Your task to perform on an android device: Search for a new bronzer Image 0: 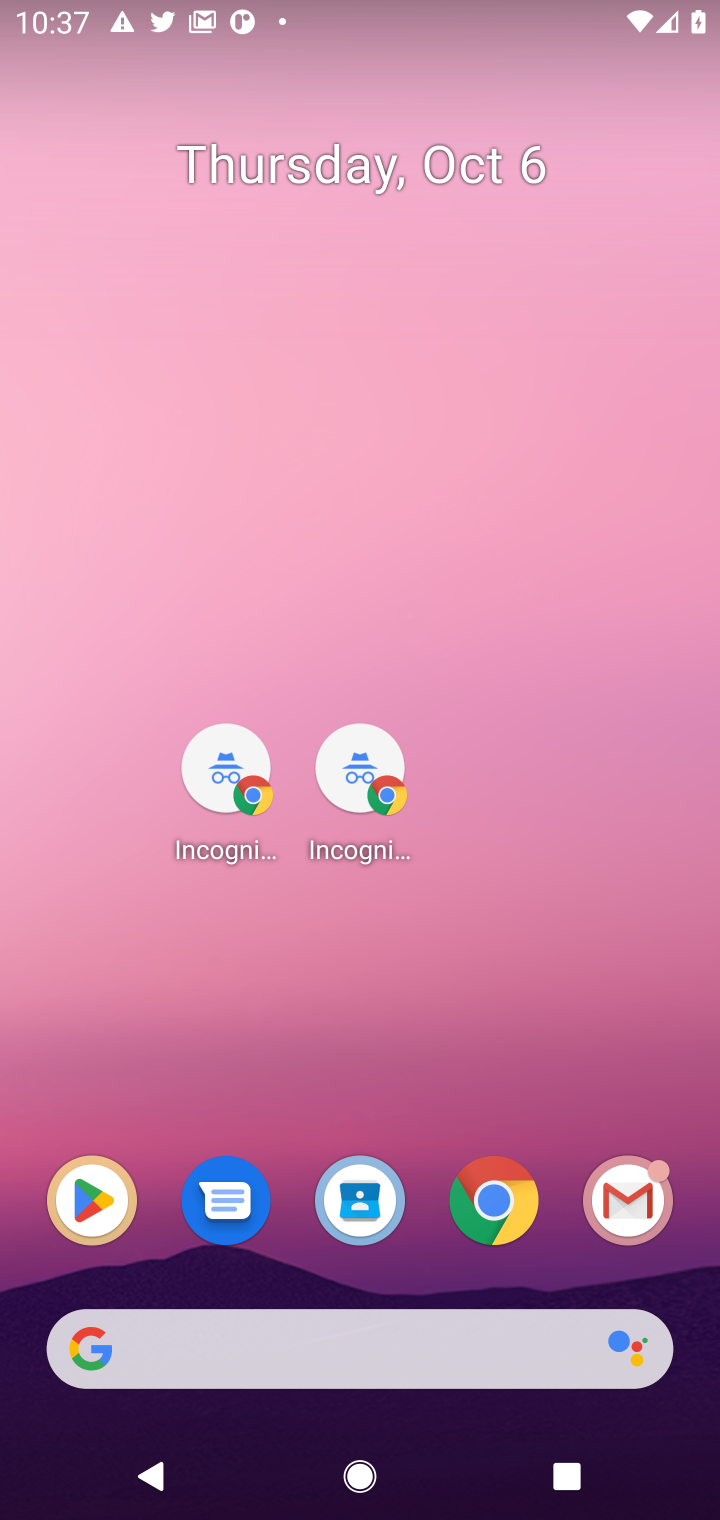
Step 0: click (505, 1208)
Your task to perform on an android device: Search for a new bronzer Image 1: 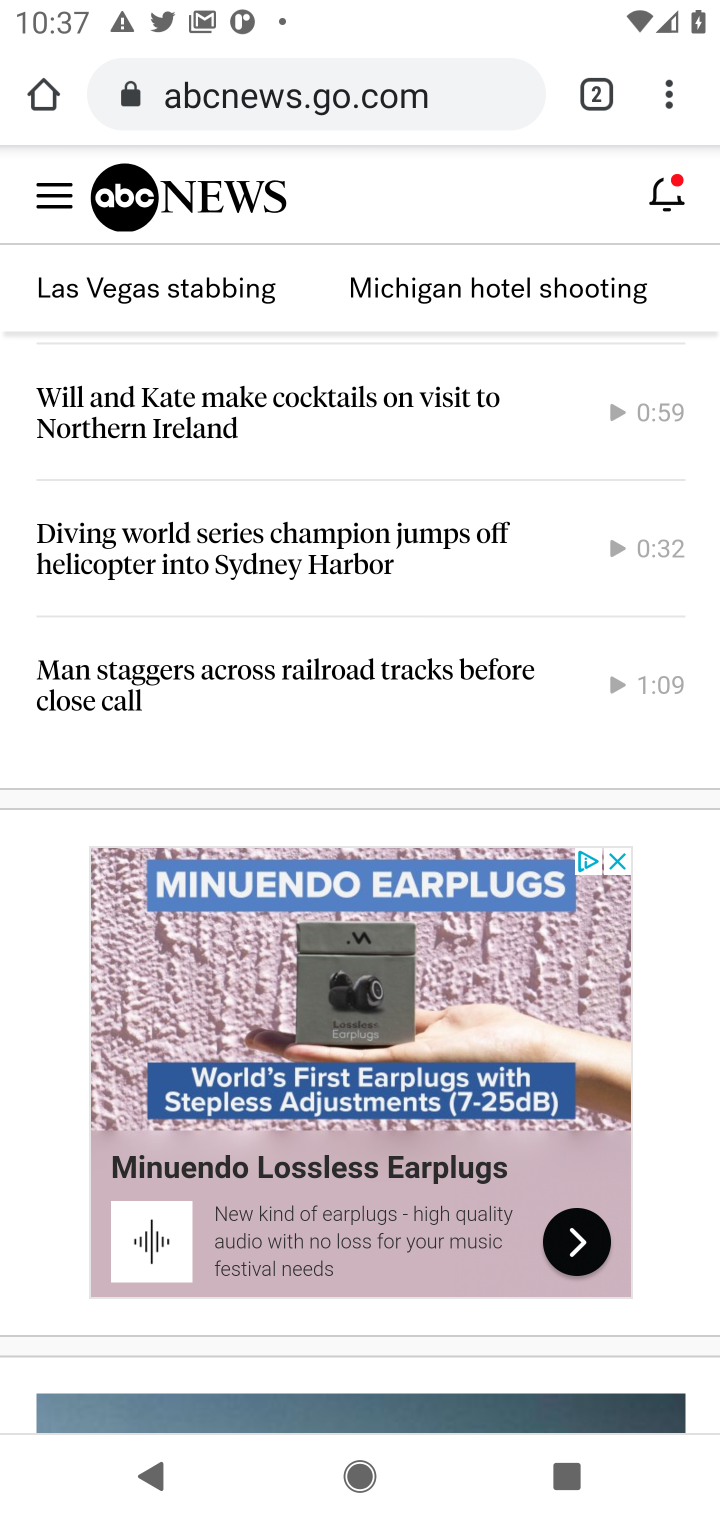
Step 1: click (439, 91)
Your task to perform on an android device: Search for a new bronzer Image 2: 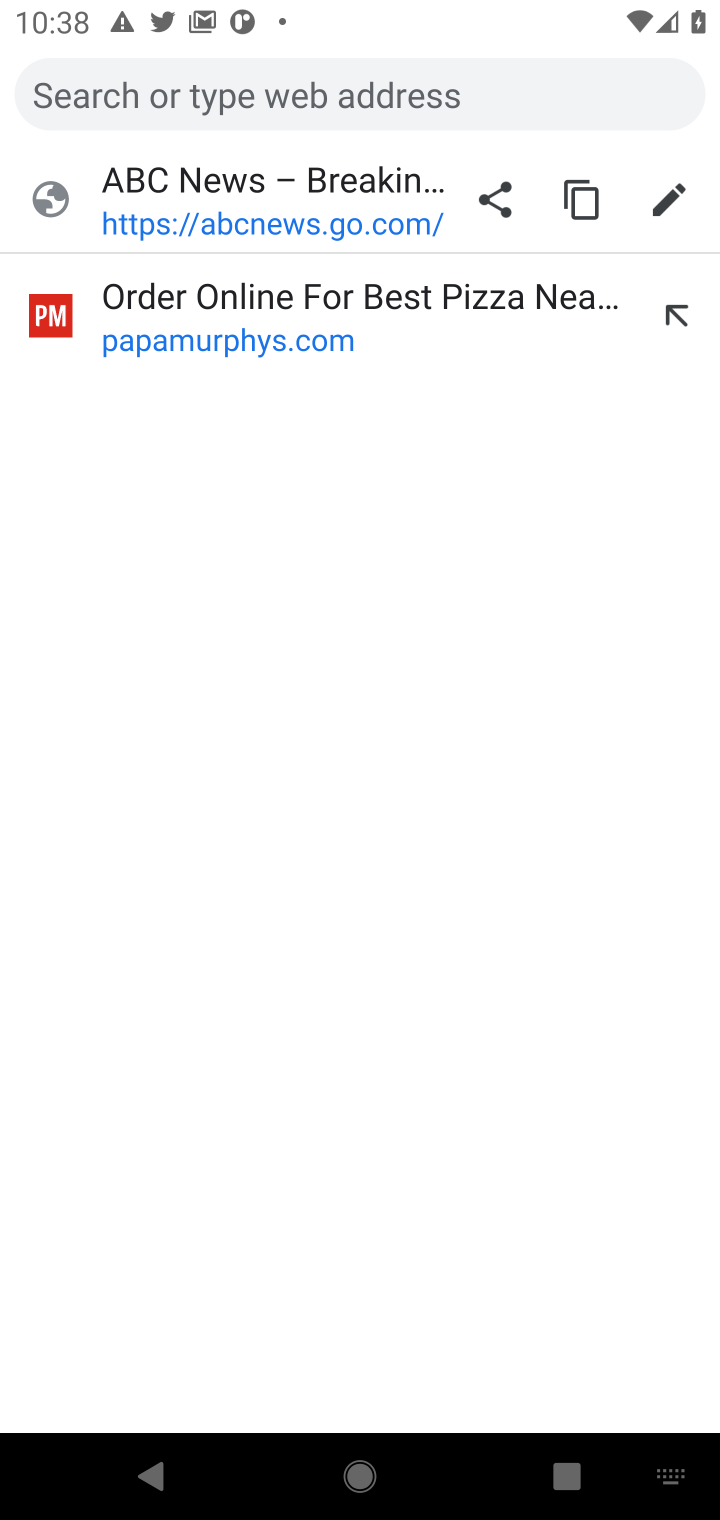
Step 2: type "new bronzer"
Your task to perform on an android device: Search for a new bronzer Image 3: 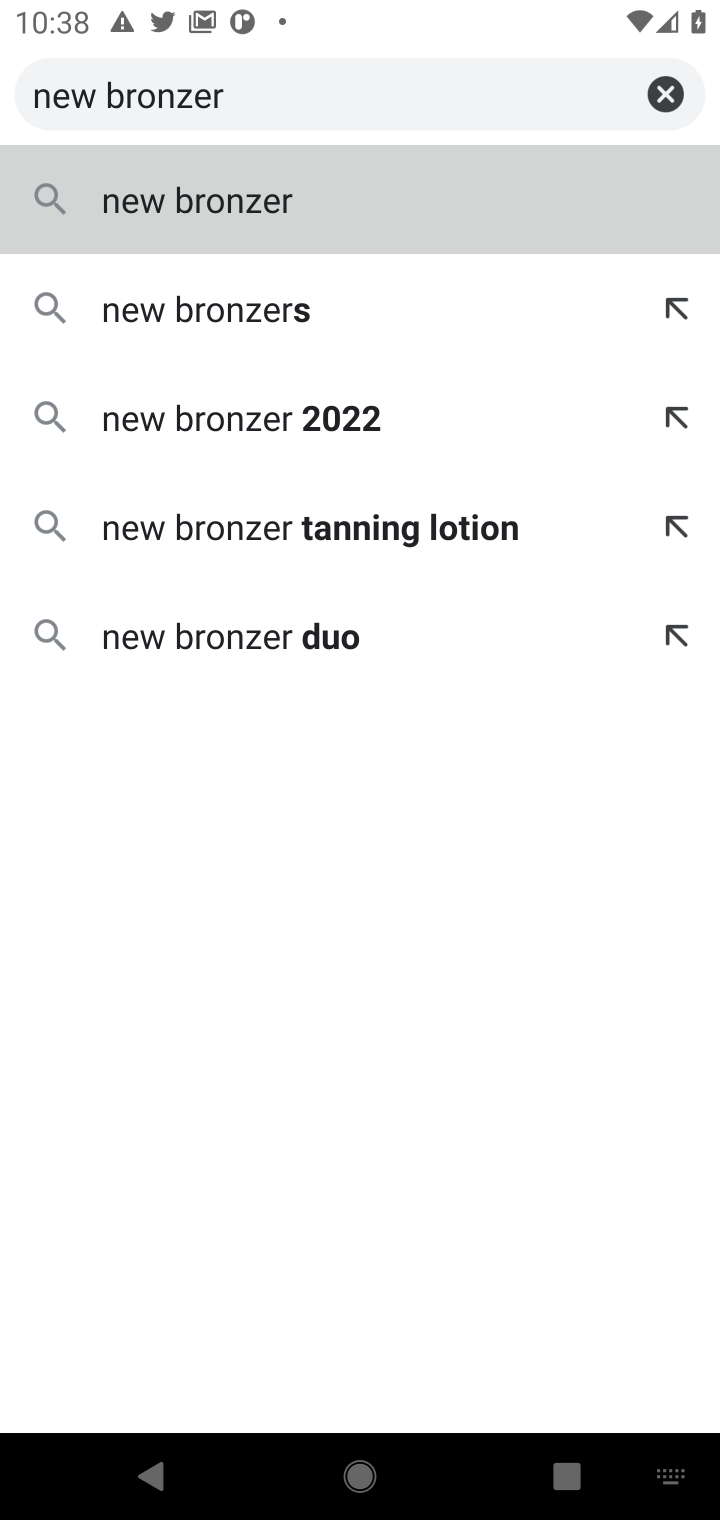
Step 3: click (268, 310)
Your task to perform on an android device: Search for a new bronzer Image 4: 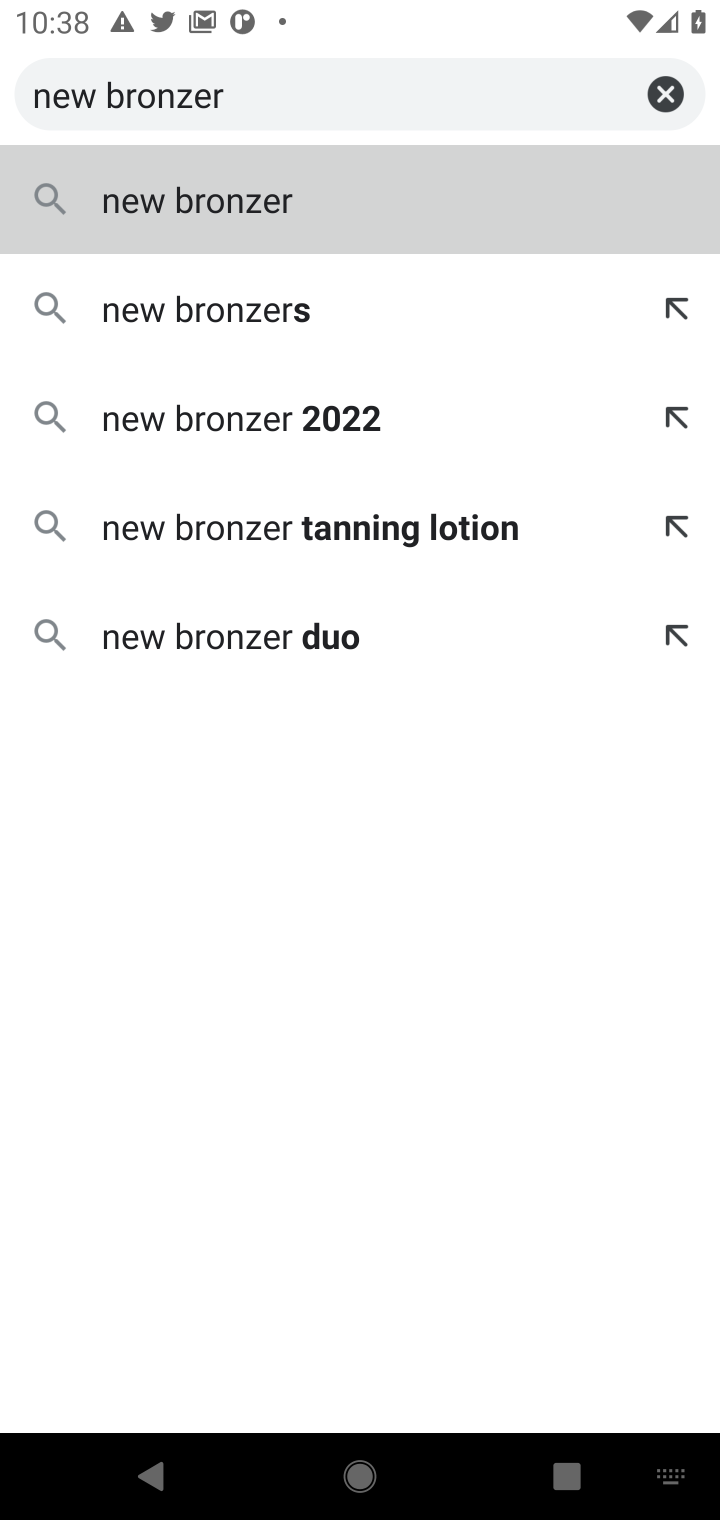
Step 4: click (315, 405)
Your task to perform on an android device: Search for a new bronzer Image 5: 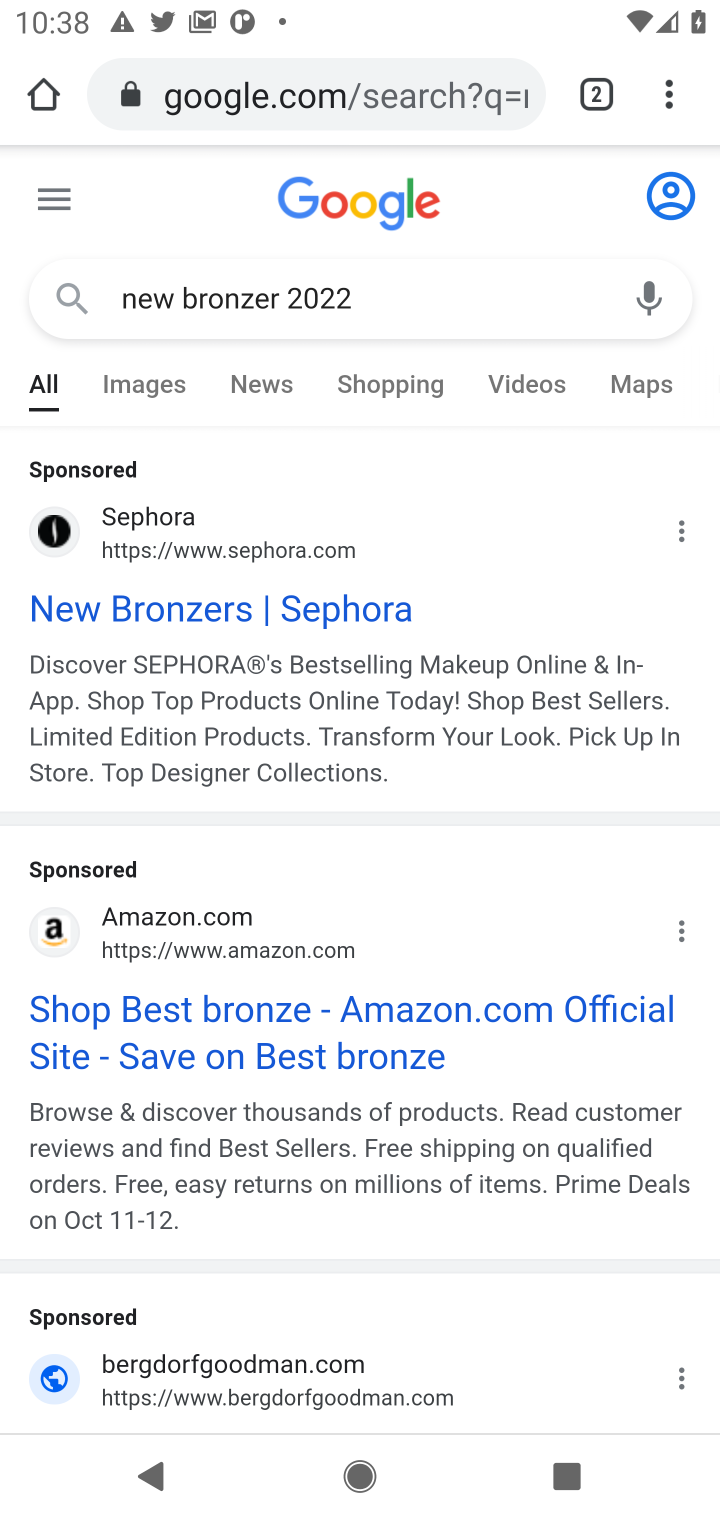
Step 5: click (176, 601)
Your task to perform on an android device: Search for a new bronzer Image 6: 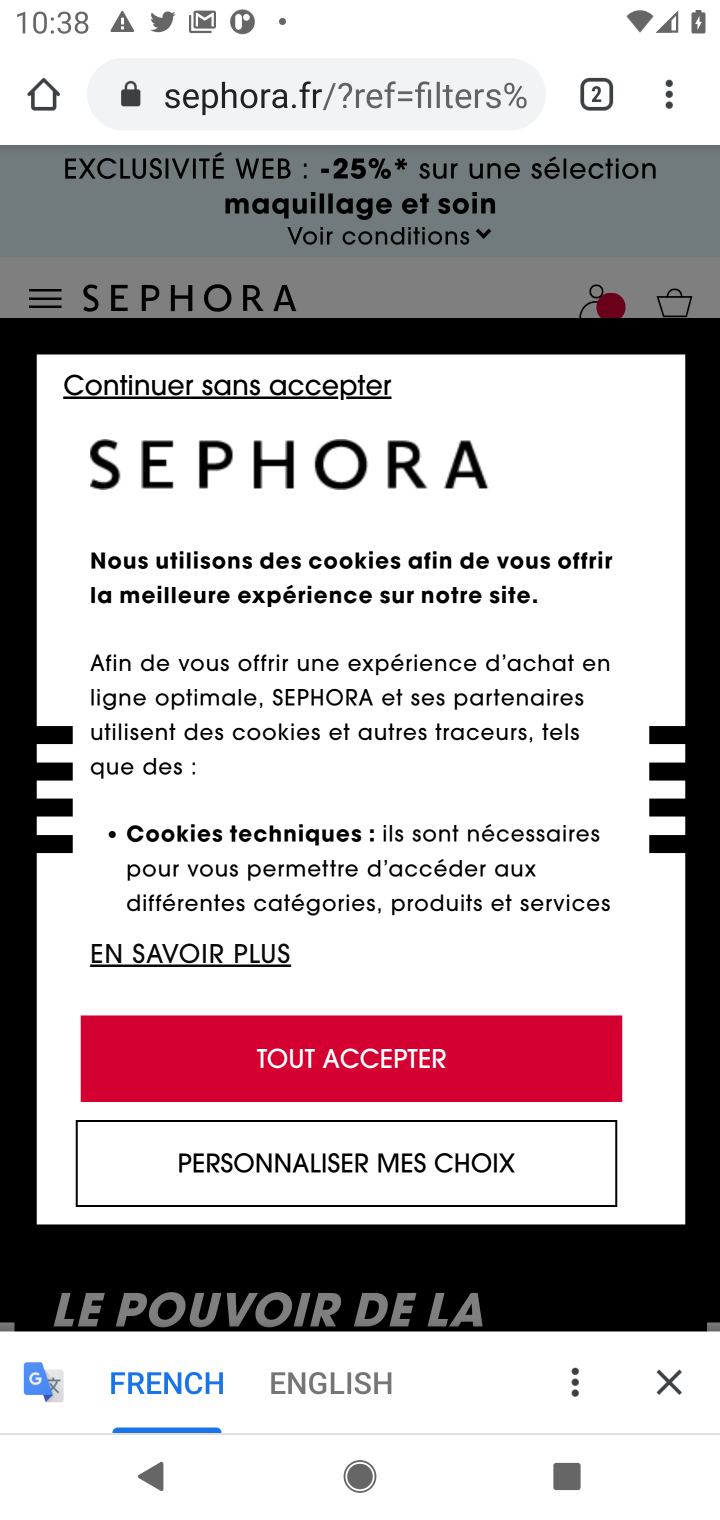
Step 6: click (661, 1383)
Your task to perform on an android device: Search for a new bronzer Image 7: 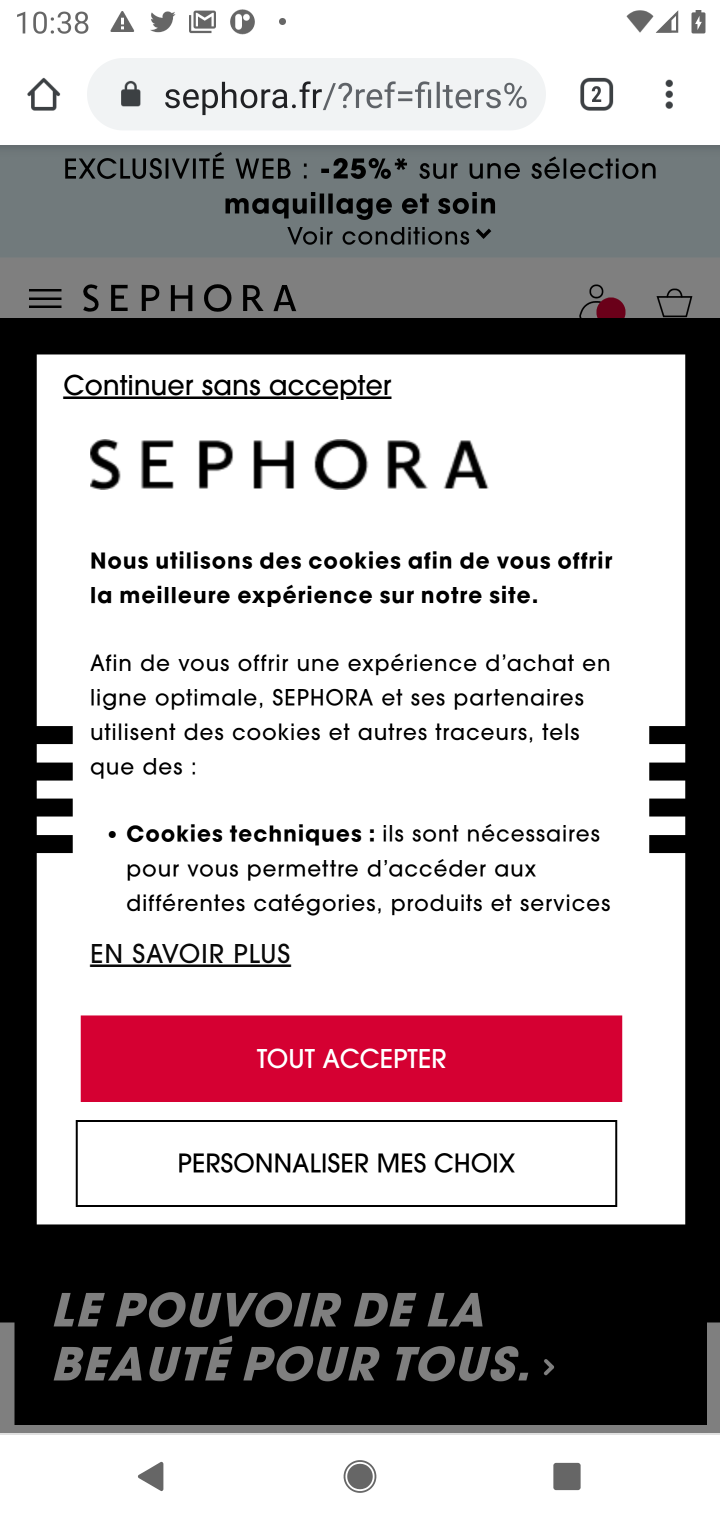
Step 7: press back button
Your task to perform on an android device: Search for a new bronzer Image 8: 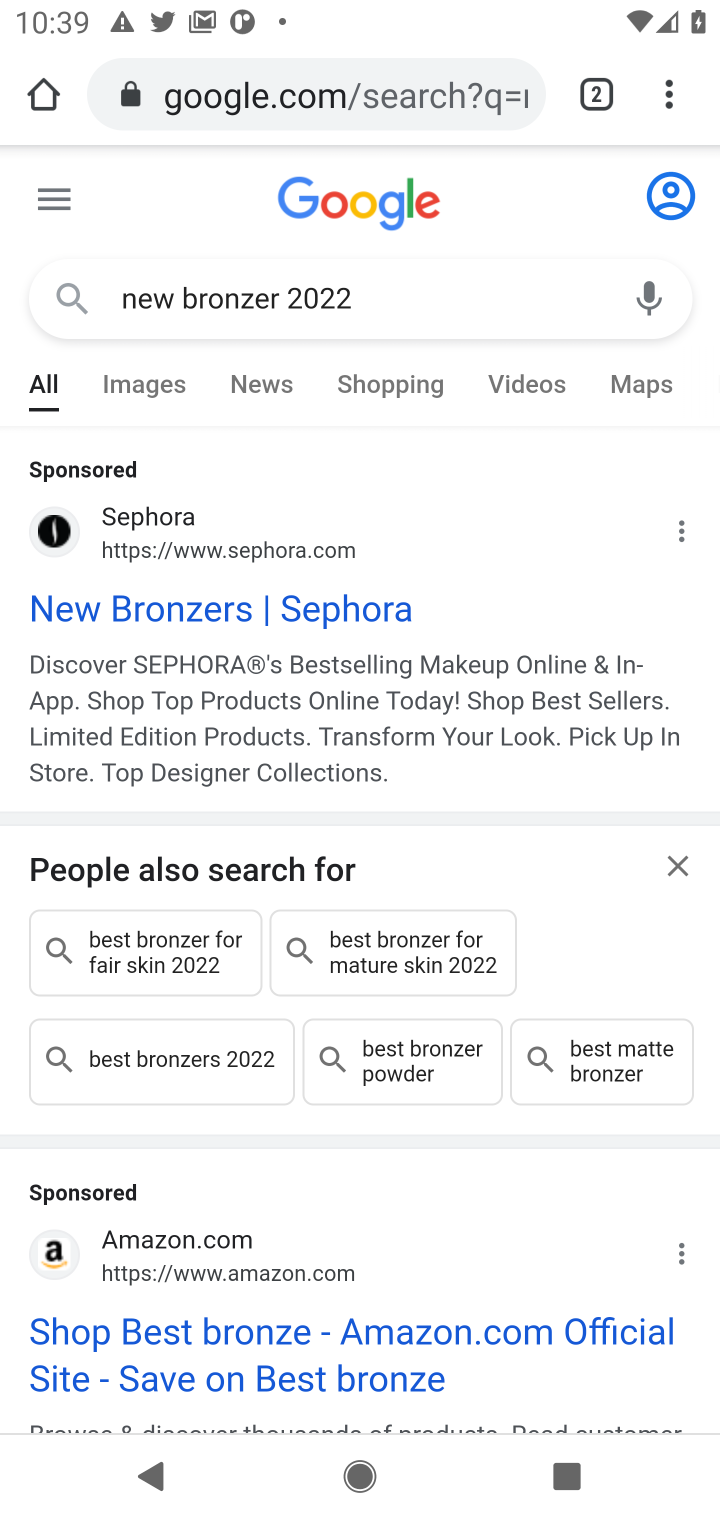
Step 8: click (205, 614)
Your task to perform on an android device: Search for a new bronzer Image 9: 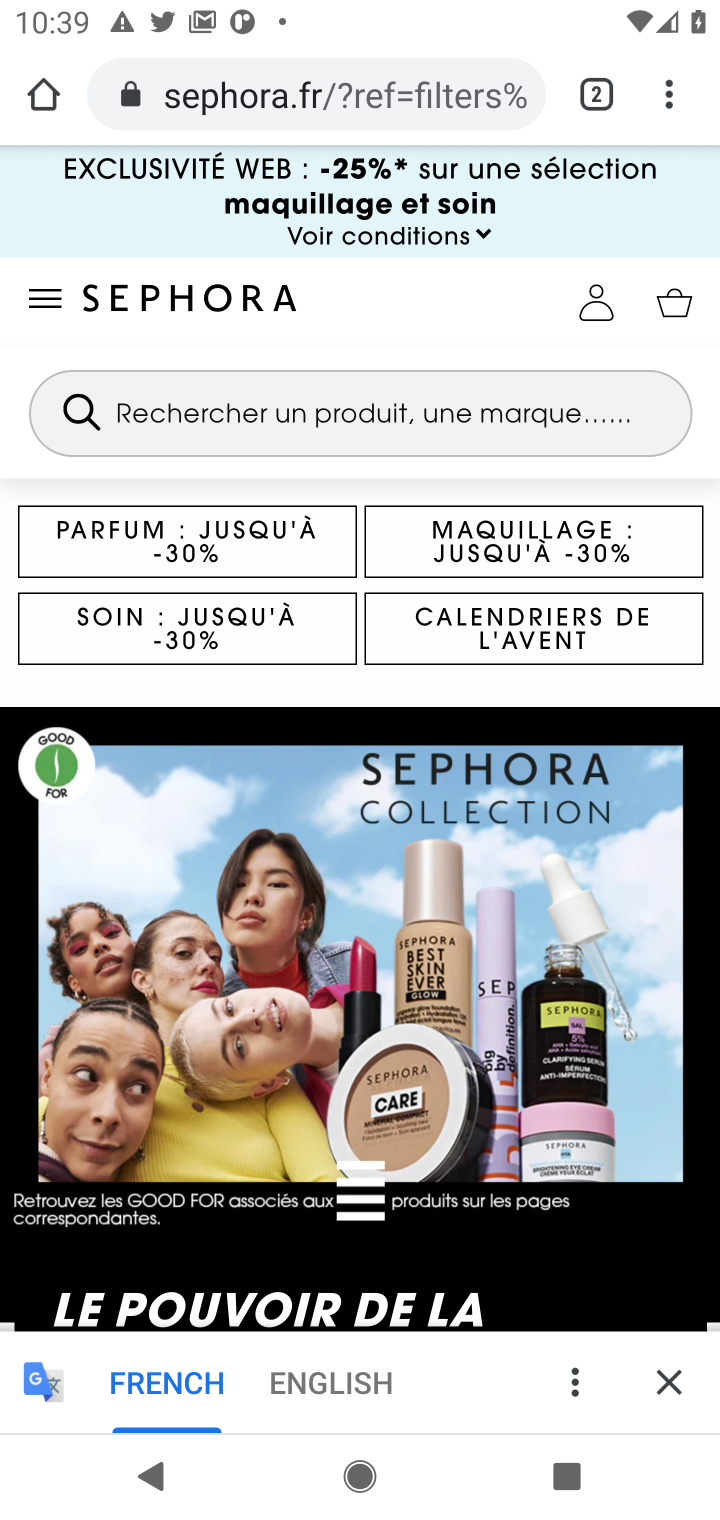
Step 9: drag from (403, 1083) to (451, 623)
Your task to perform on an android device: Search for a new bronzer Image 10: 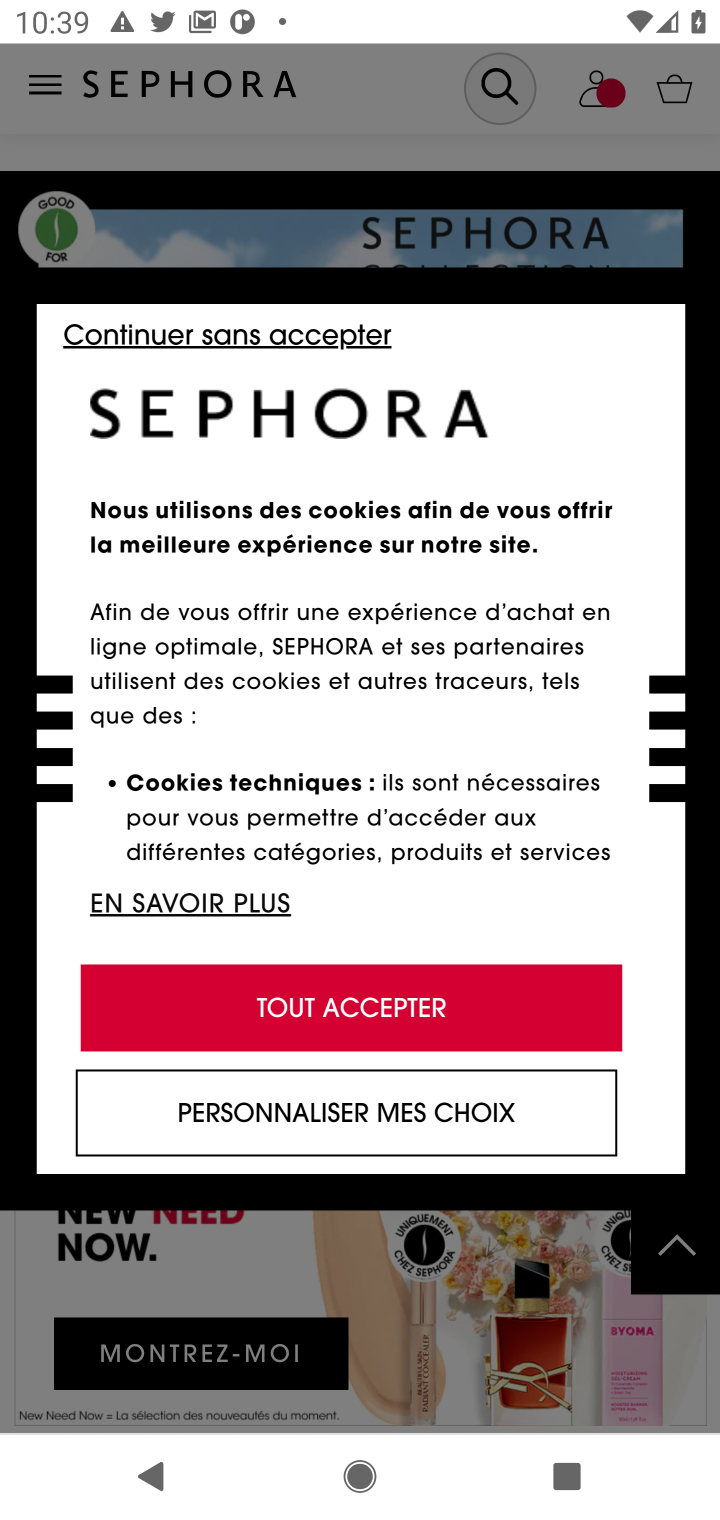
Step 10: click (345, 1023)
Your task to perform on an android device: Search for a new bronzer Image 11: 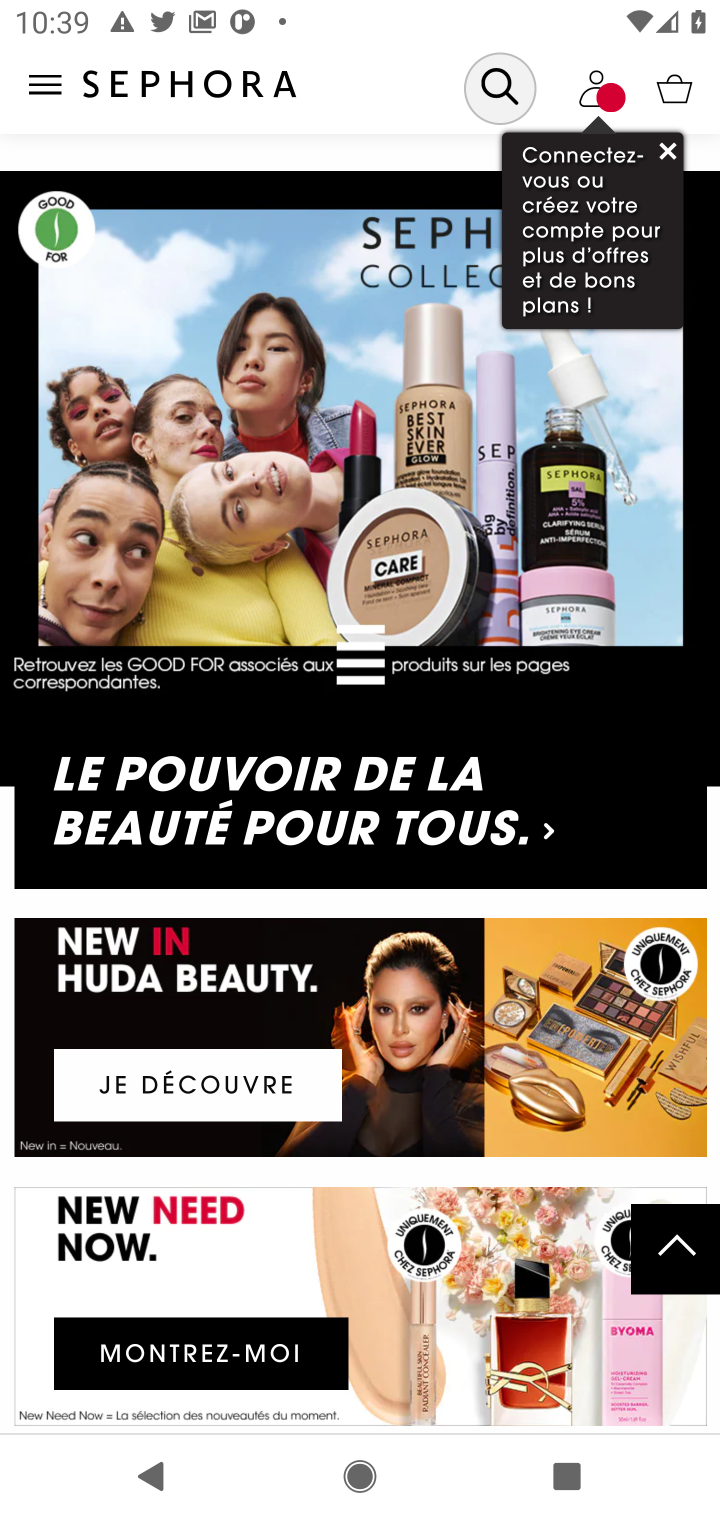
Step 11: click (485, 83)
Your task to perform on an android device: Search for a new bronzer Image 12: 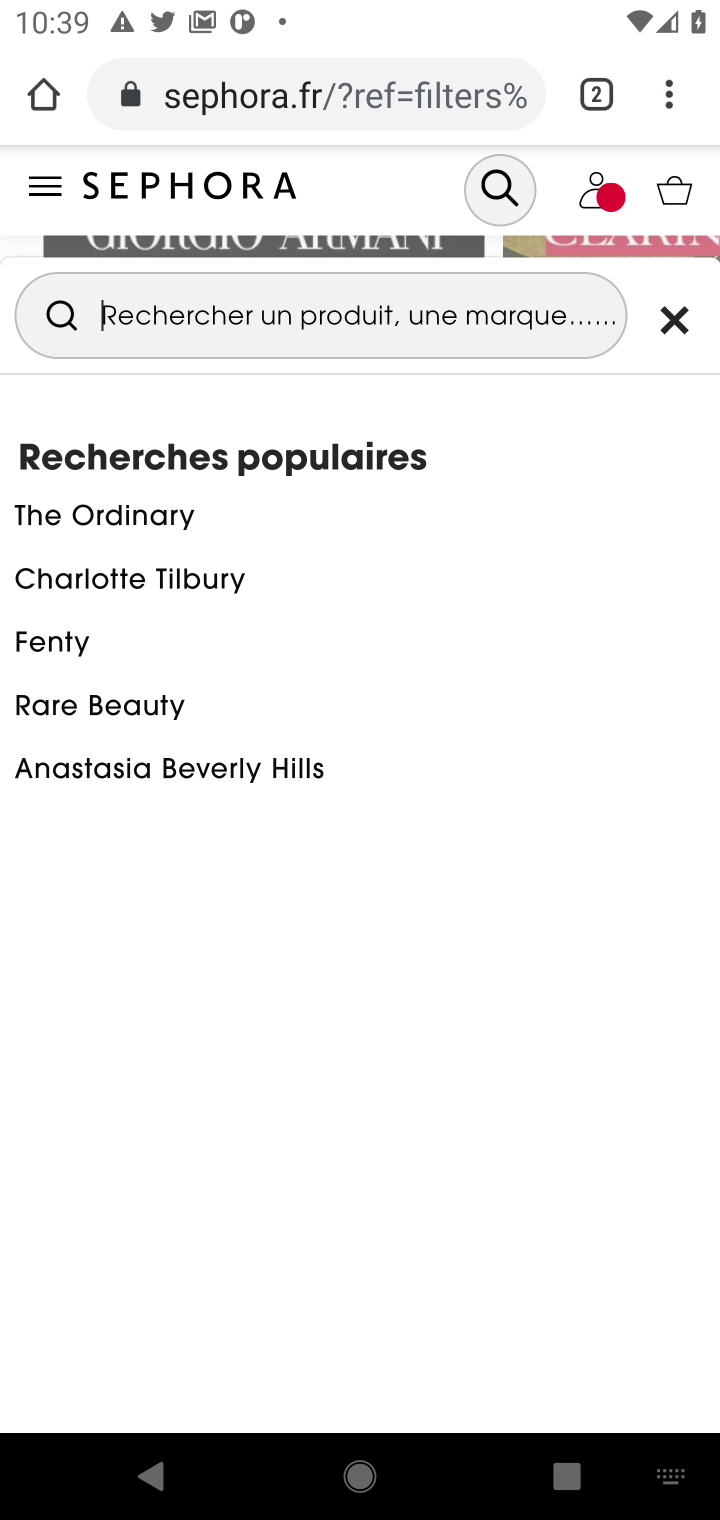
Step 12: click (226, 324)
Your task to perform on an android device: Search for a new bronzer Image 13: 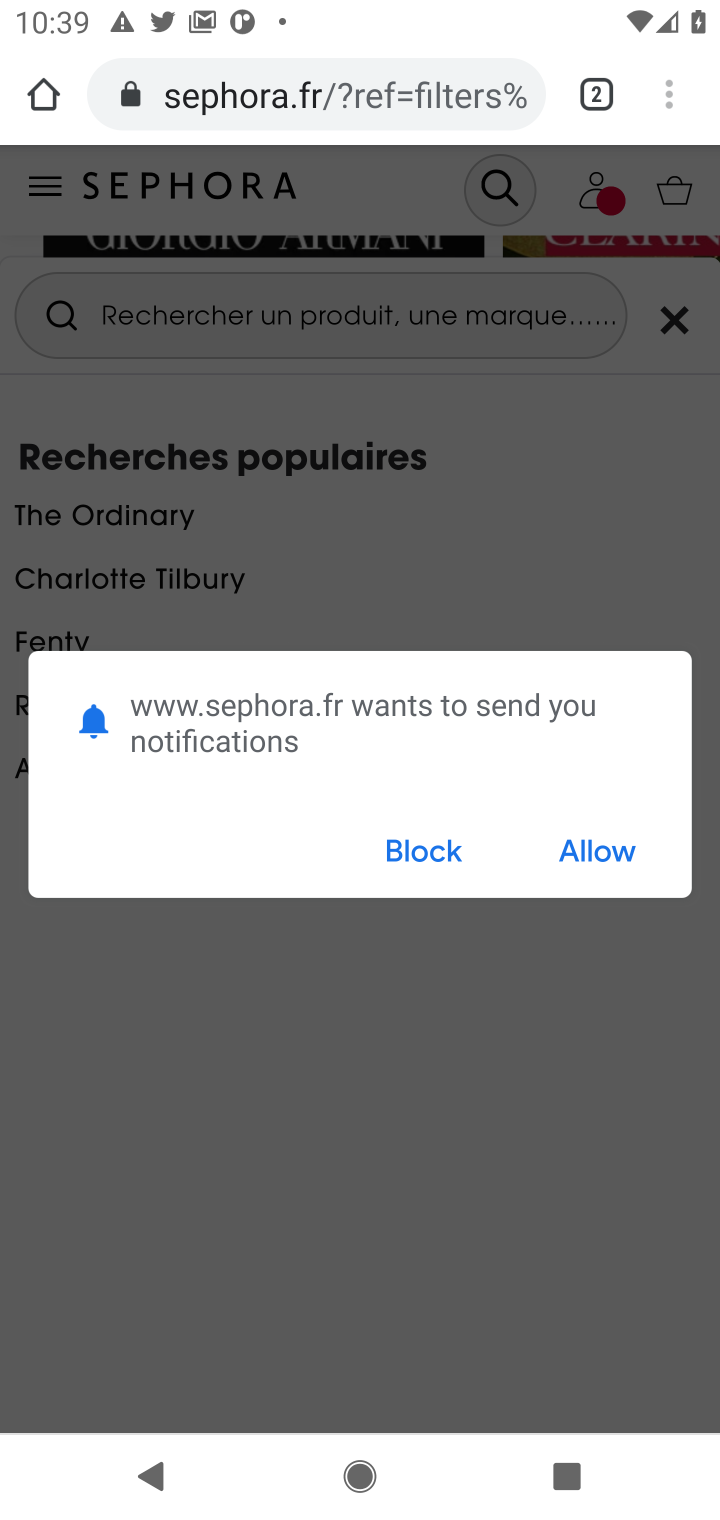
Step 13: type "new bronzer"
Your task to perform on an android device: Search for a new bronzer Image 14: 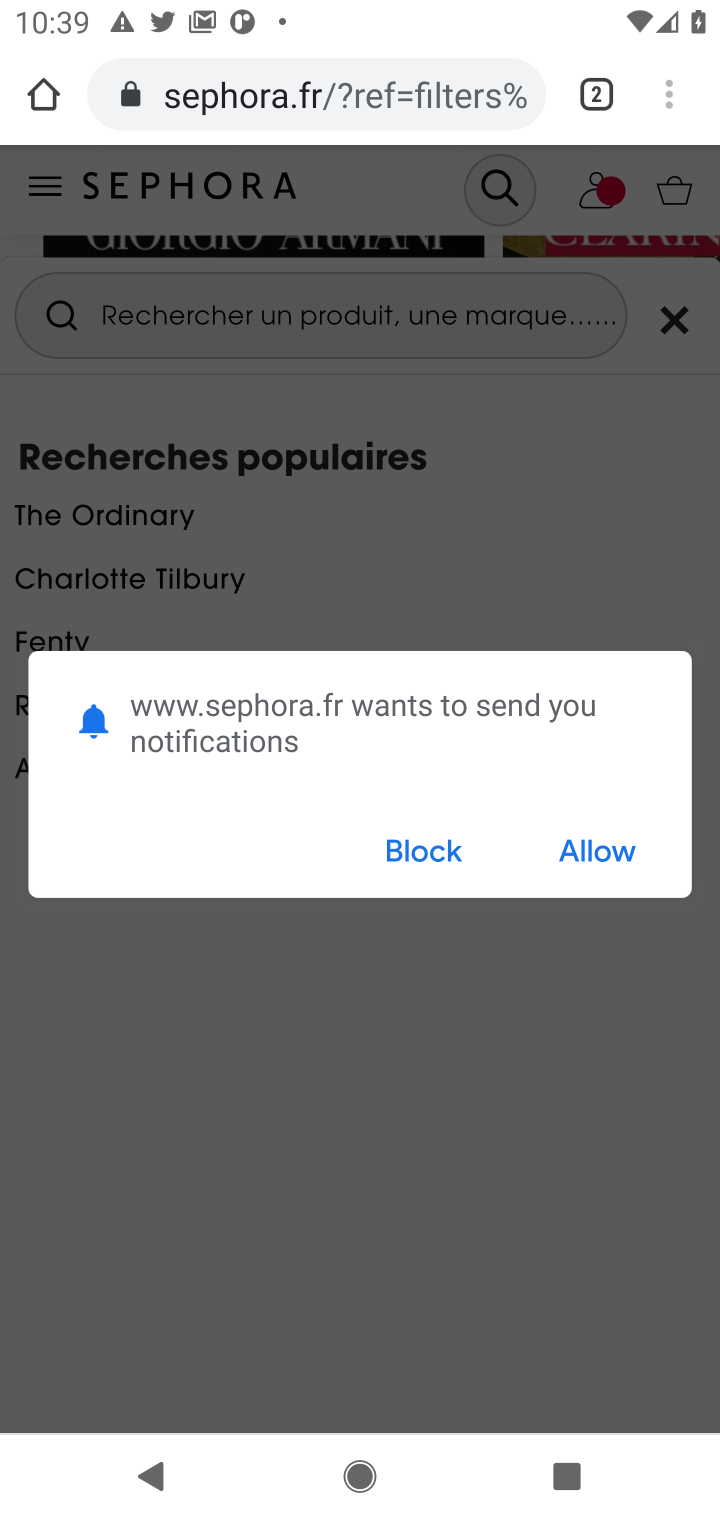
Step 14: click (629, 851)
Your task to perform on an android device: Search for a new bronzer Image 15: 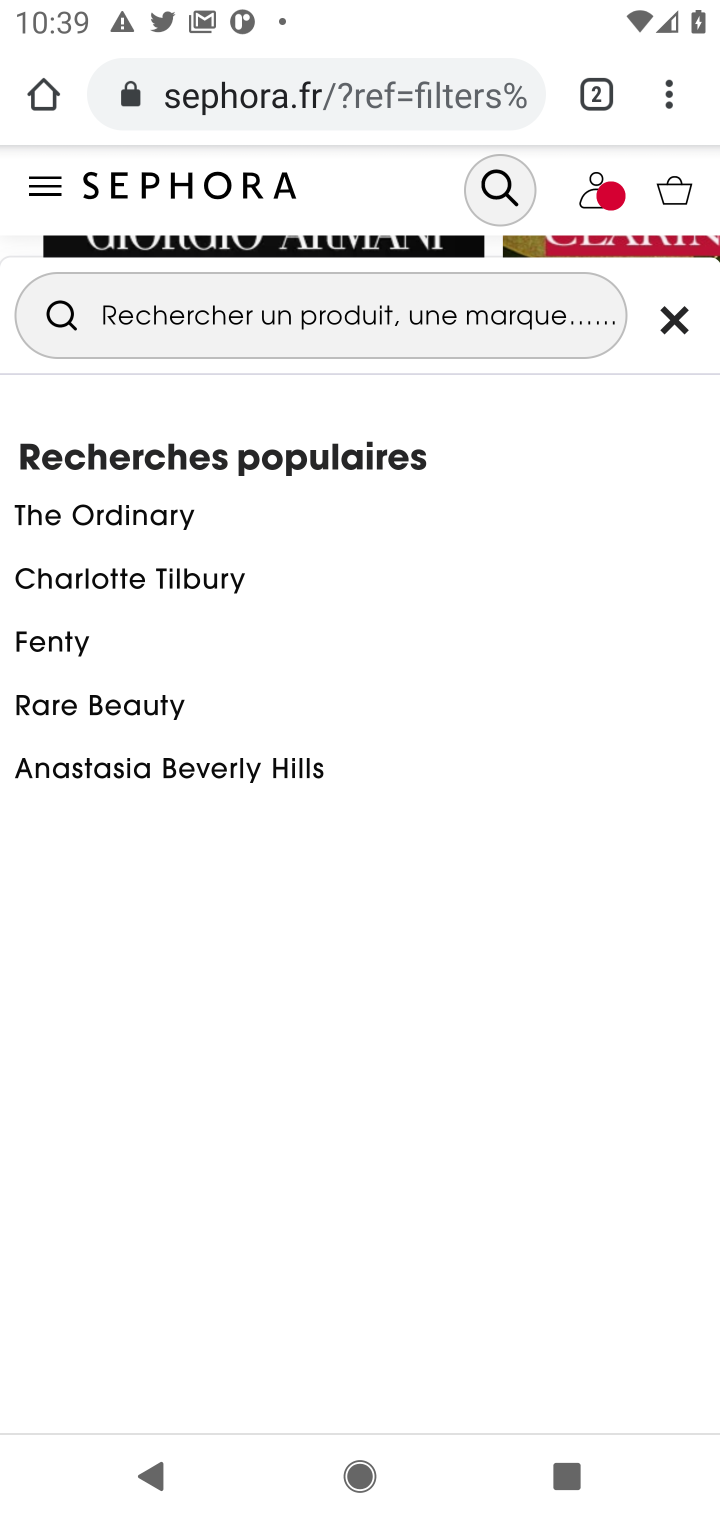
Step 15: click (259, 302)
Your task to perform on an android device: Search for a new bronzer Image 16: 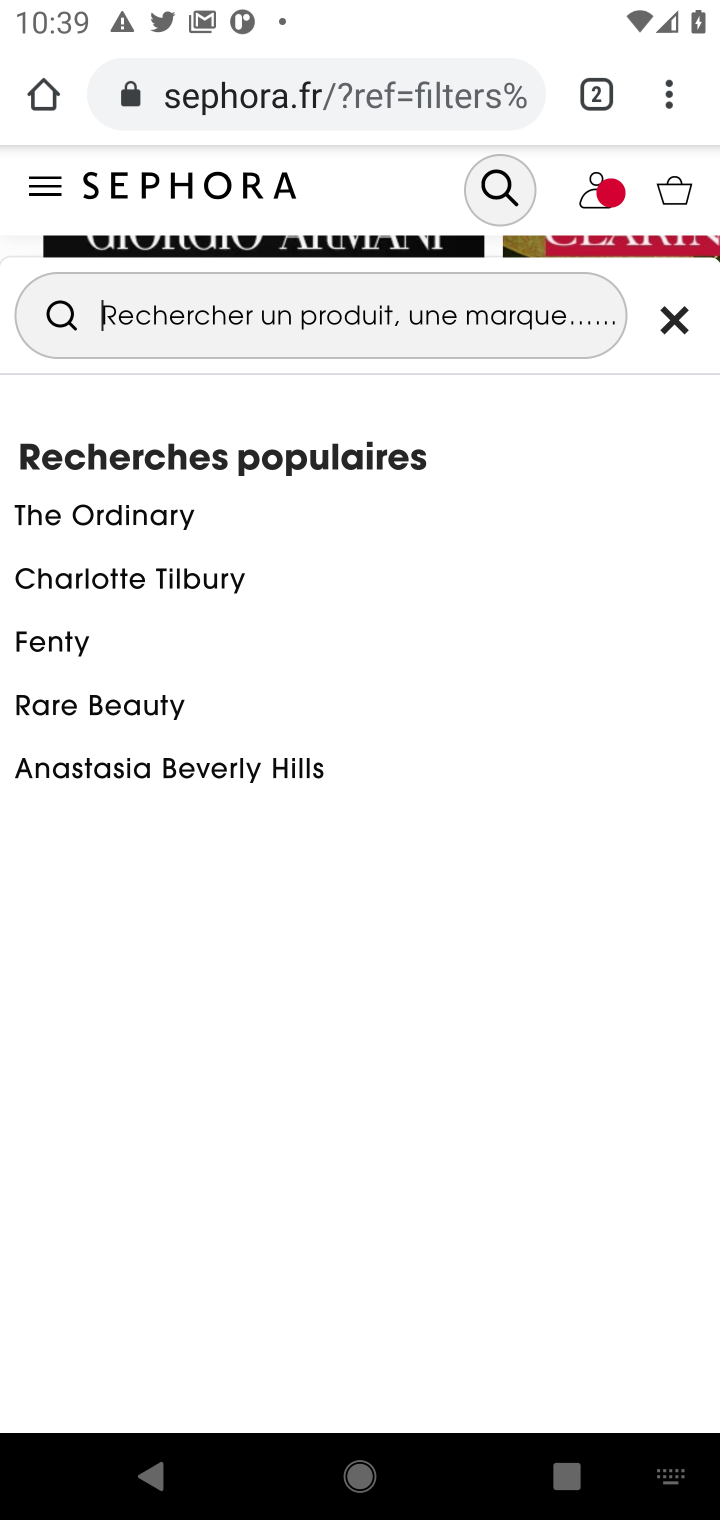
Step 16: type "new bronzer"
Your task to perform on an android device: Search for a new bronzer Image 17: 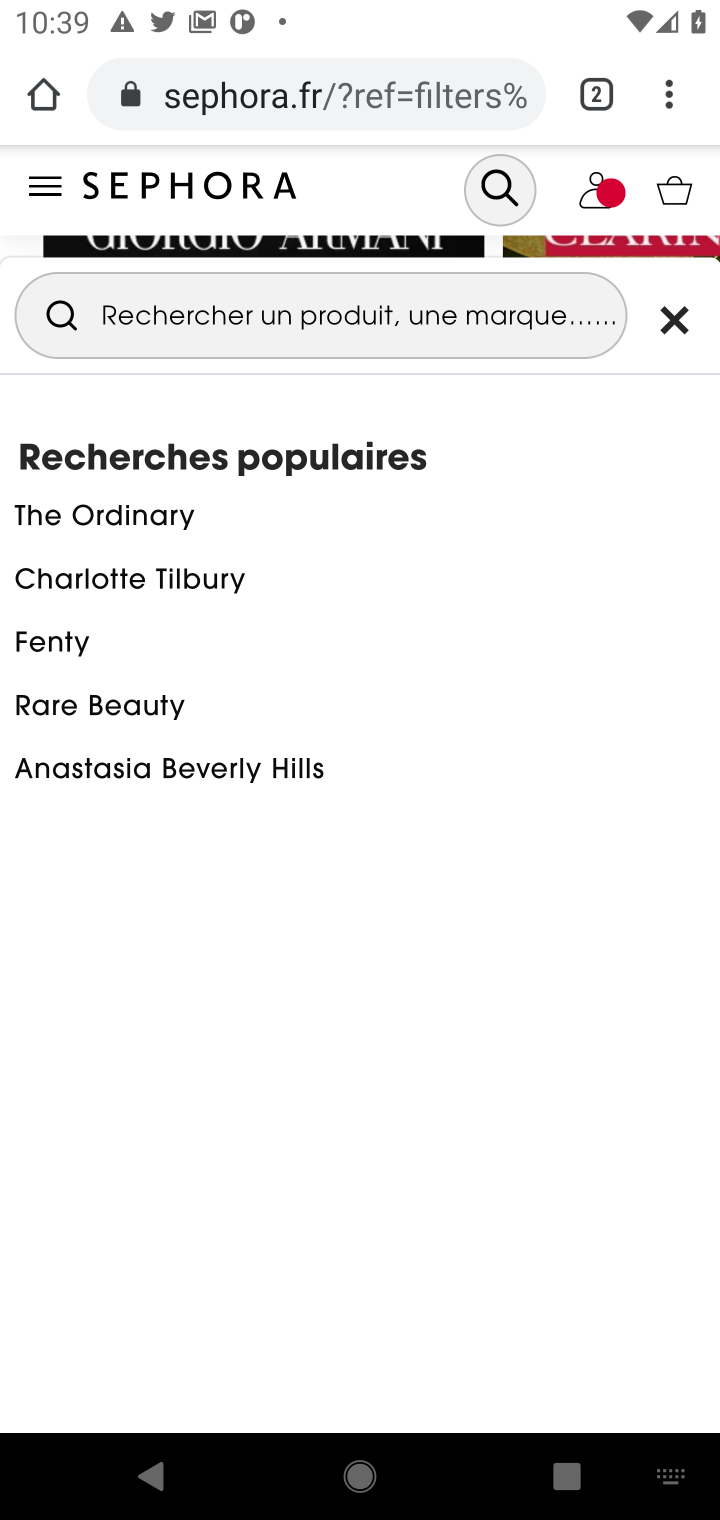
Step 17: type ""
Your task to perform on an android device: Search for a new bronzer Image 18: 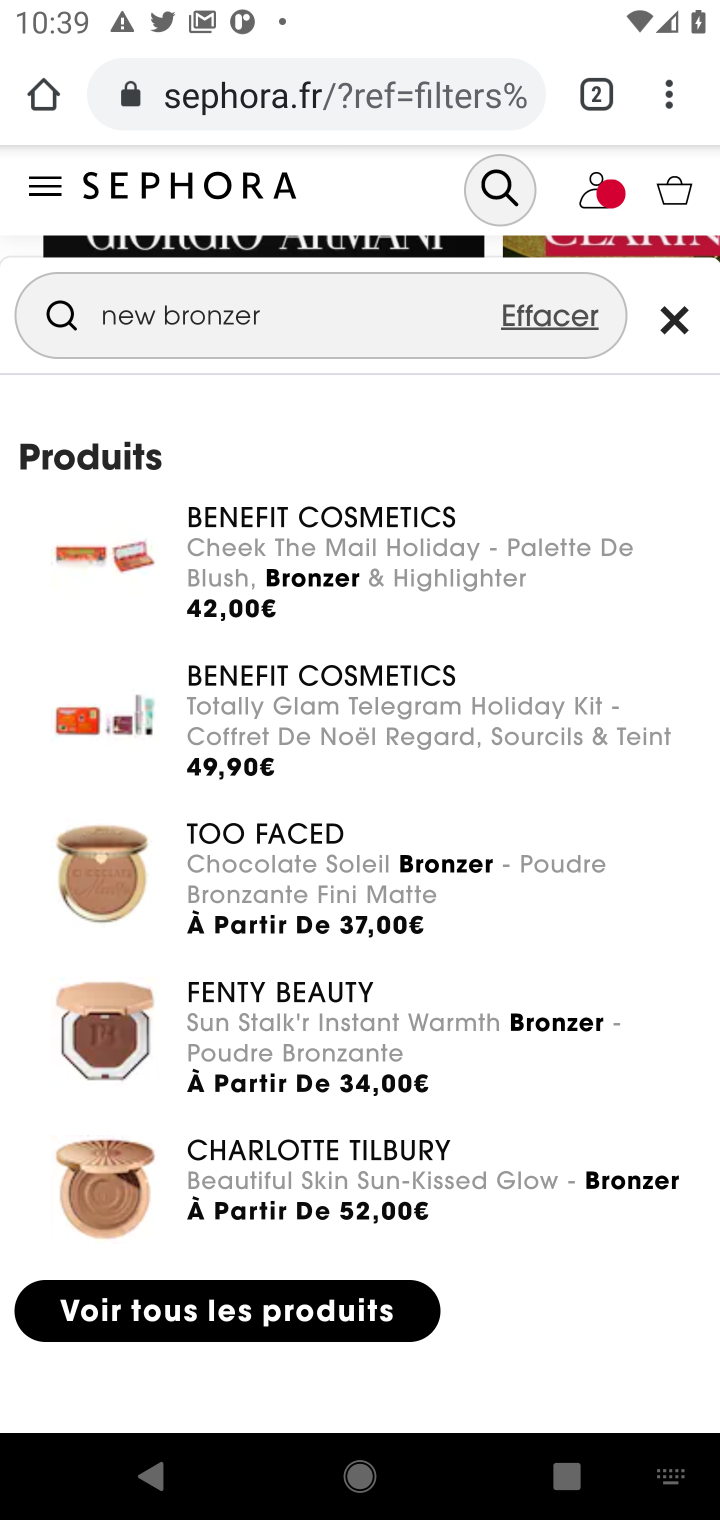
Step 18: drag from (511, 1089) to (591, 600)
Your task to perform on an android device: Search for a new bronzer Image 19: 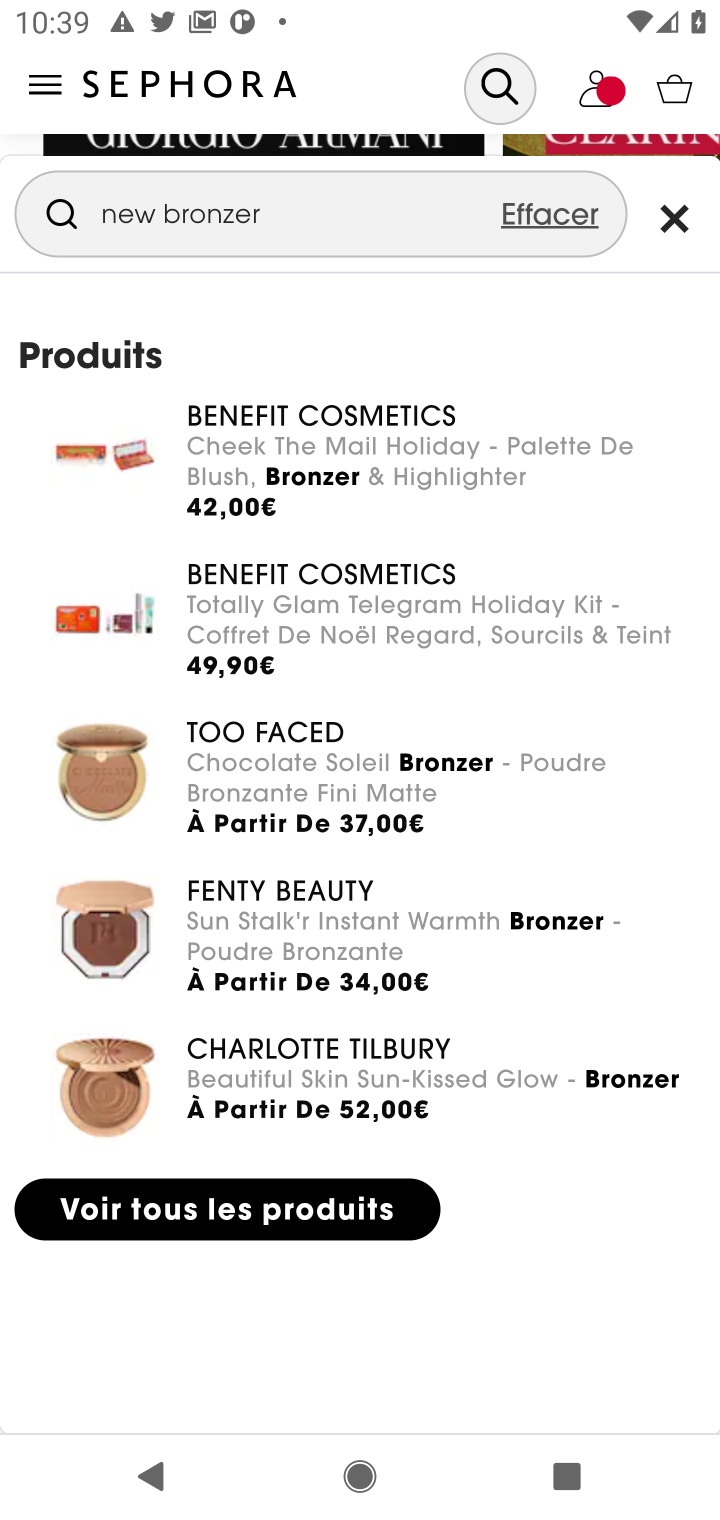
Step 19: click (293, 752)
Your task to perform on an android device: Search for a new bronzer Image 20: 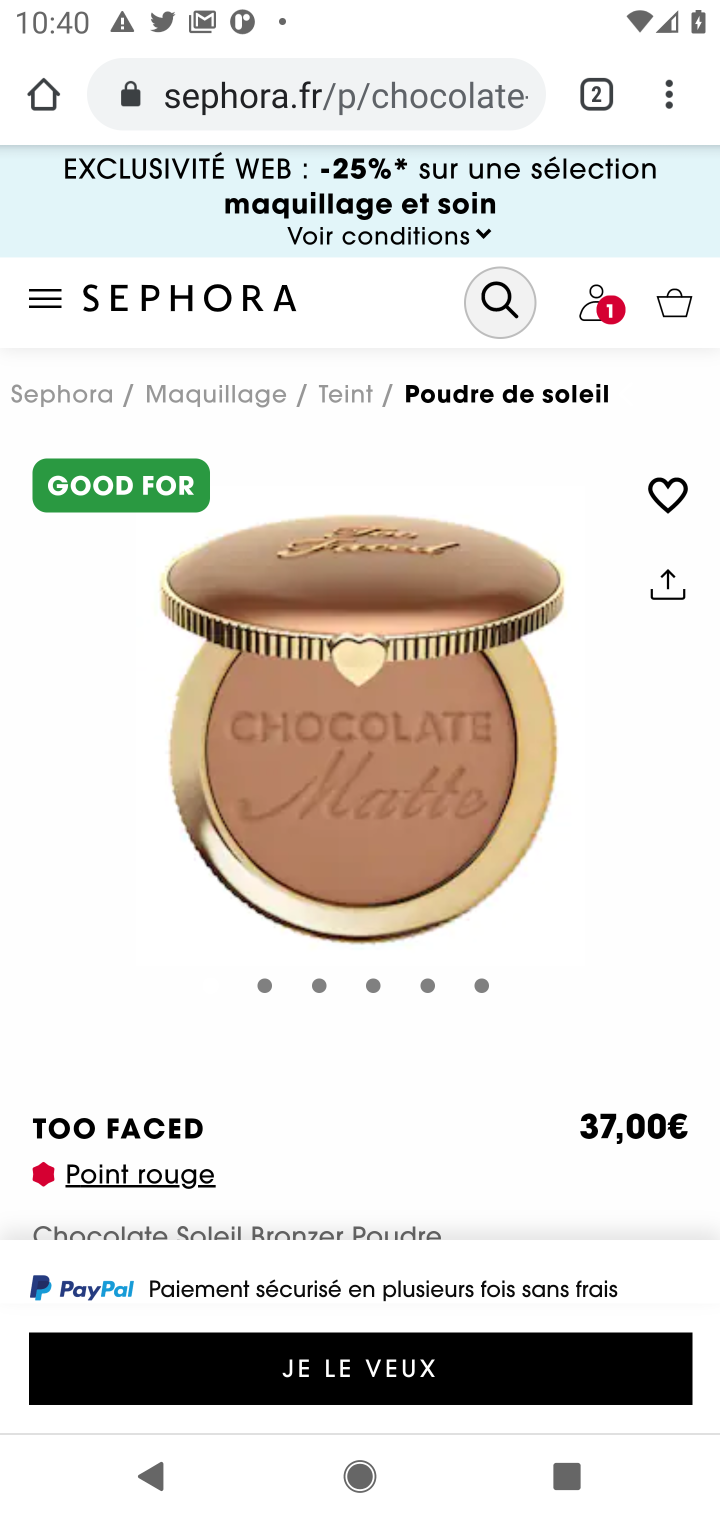
Step 20: click (365, 967)
Your task to perform on an android device: Search for a new bronzer Image 21: 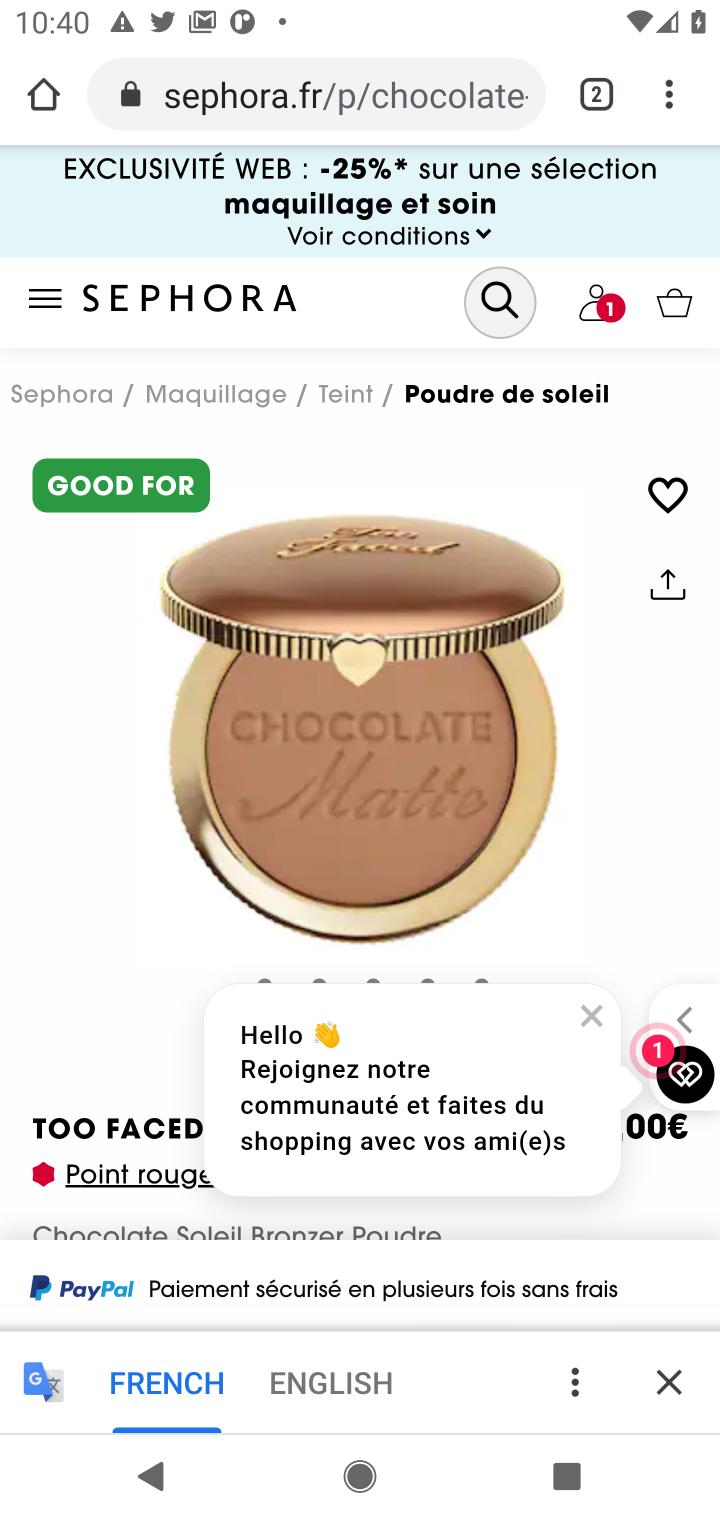
Step 21: click (595, 1011)
Your task to perform on an android device: Search for a new bronzer Image 22: 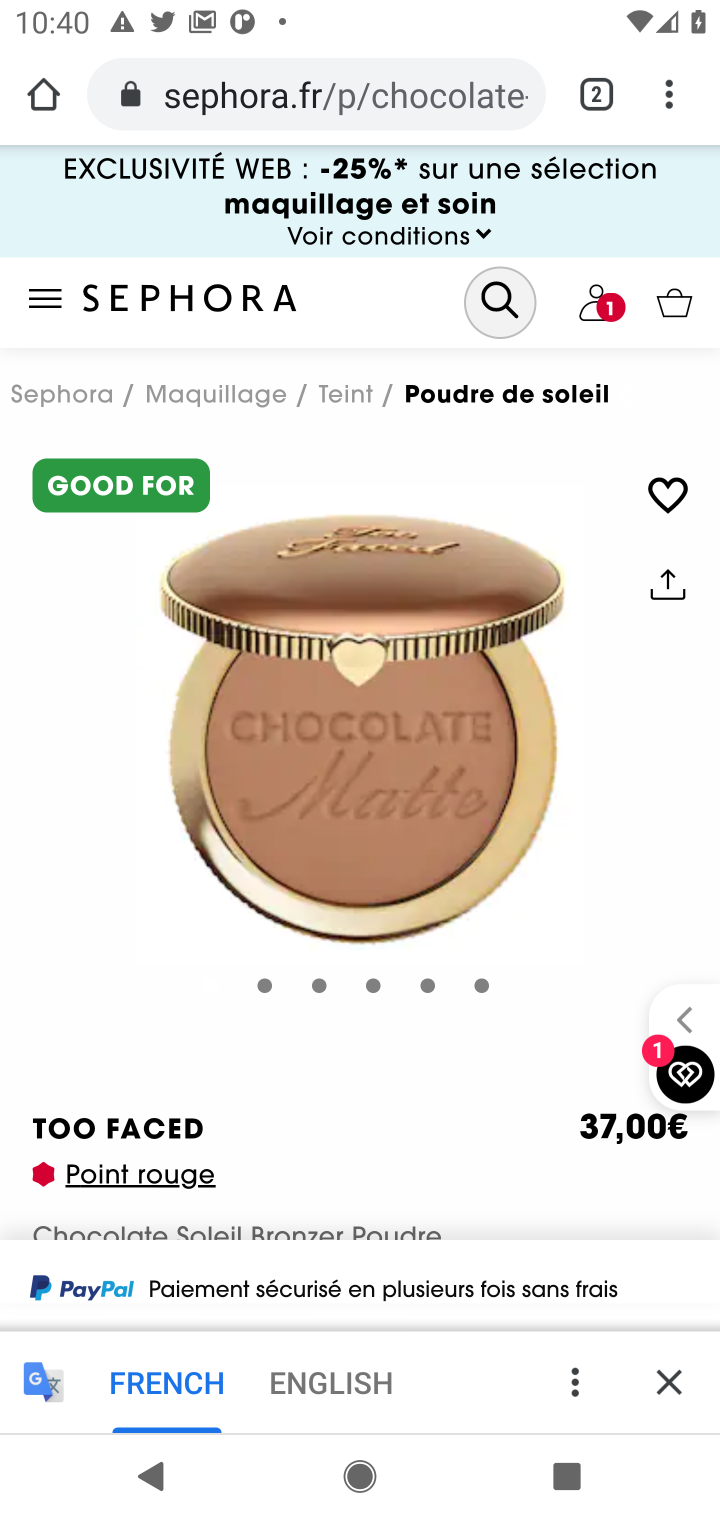
Step 22: task complete